Your task to perform on an android device: Go to Google maps Image 0: 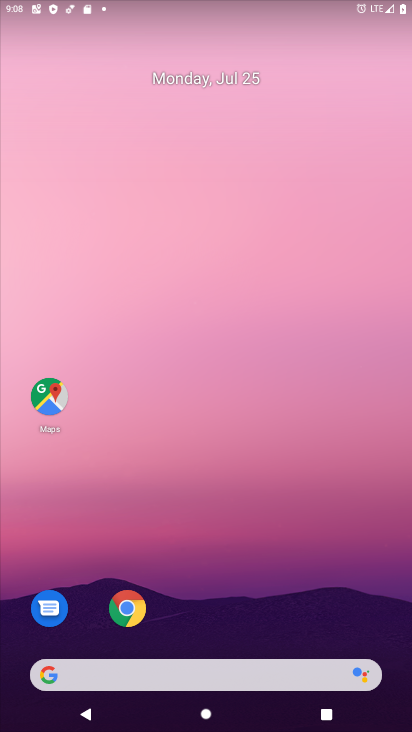
Step 0: drag from (230, 708) to (244, 48)
Your task to perform on an android device: Go to Google maps Image 1: 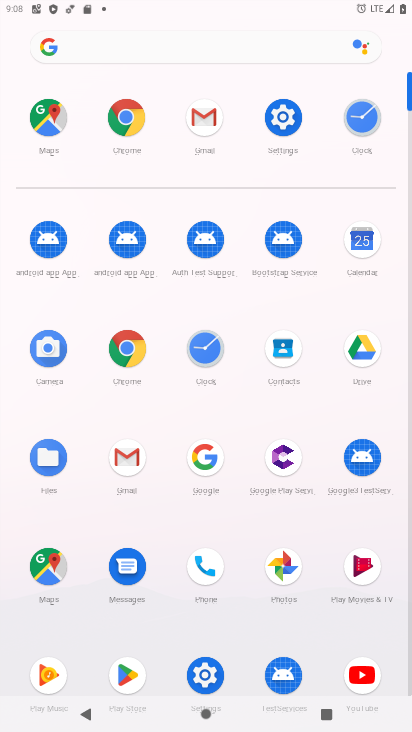
Step 1: click (46, 562)
Your task to perform on an android device: Go to Google maps Image 2: 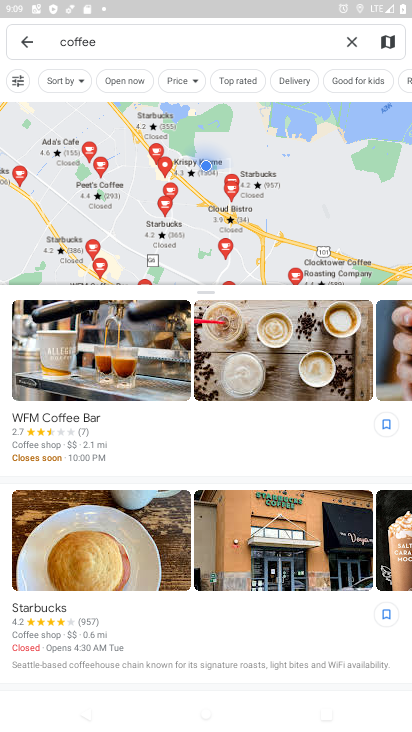
Step 2: task complete